Your task to perform on an android device: Open Maps and search for coffee Image 0: 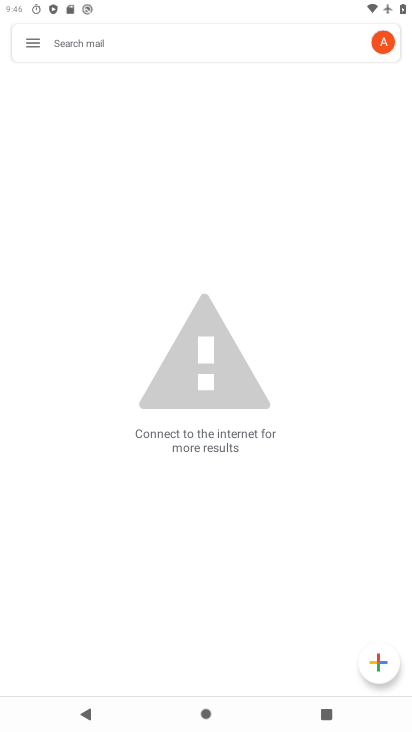
Step 0: press home button
Your task to perform on an android device: Open Maps and search for coffee Image 1: 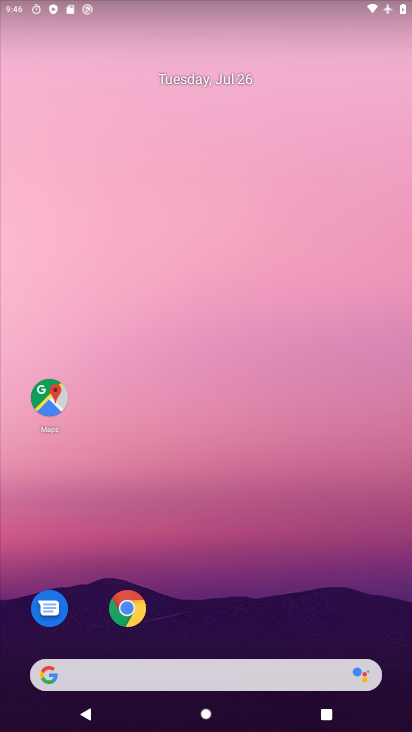
Step 1: click (61, 395)
Your task to perform on an android device: Open Maps and search for coffee Image 2: 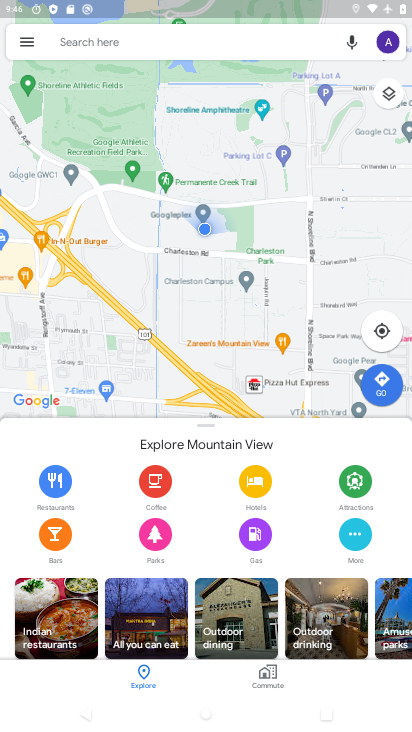
Step 2: click (179, 42)
Your task to perform on an android device: Open Maps and search for coffee Image 3: 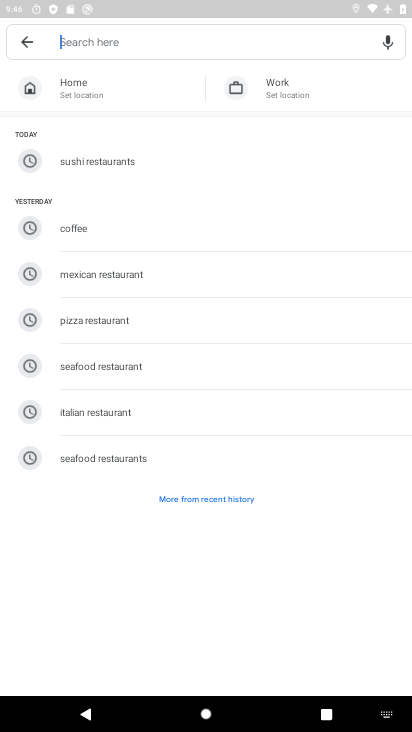
Step 3: click (73, 219)
Your task to perform on an android device: Open Maps and search for coffee Image 4: 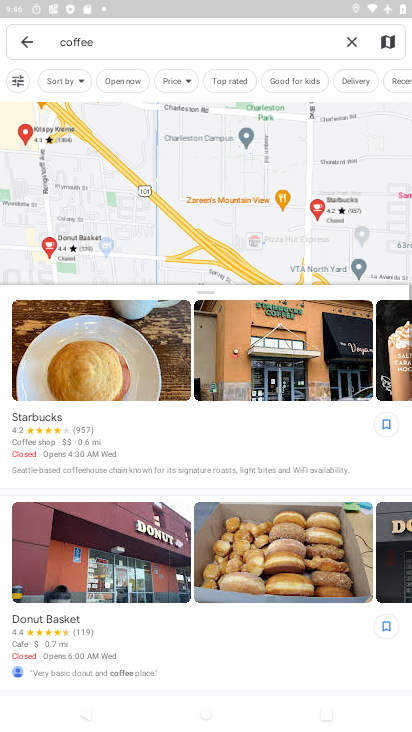
Step 4: task complete